Your task to perform on an android device: open chrome and create a bookmark for the current page Image 0: 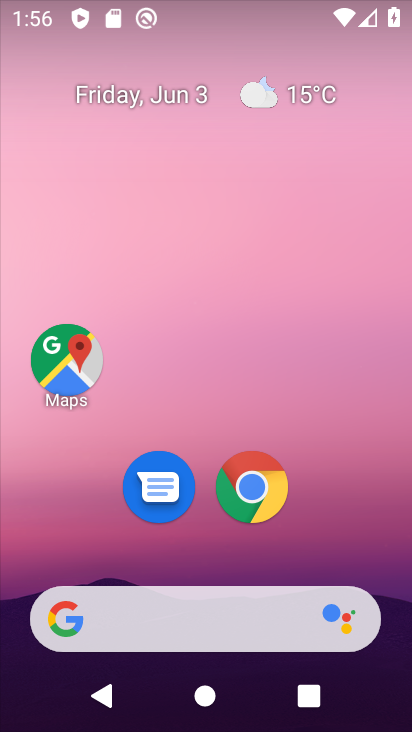
Step 0: click (270, 480)
Your task to perform on an android device: open chrome and create a bookmark for the current page Image 1: 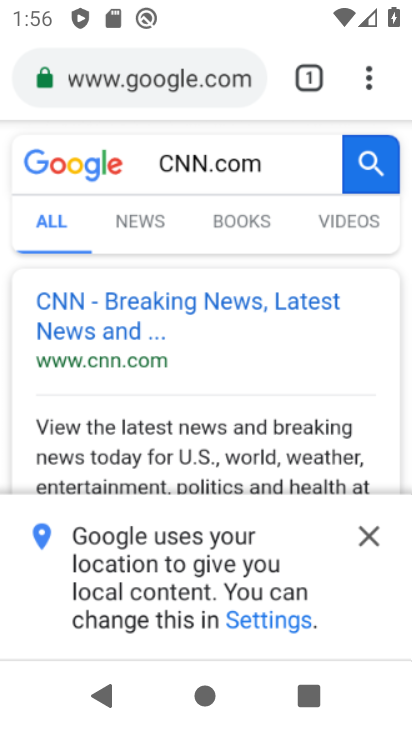
Step 1: click (368, 83)
Your task to perform on an android device: open chrome and create a bookmark for the current page Image 2: 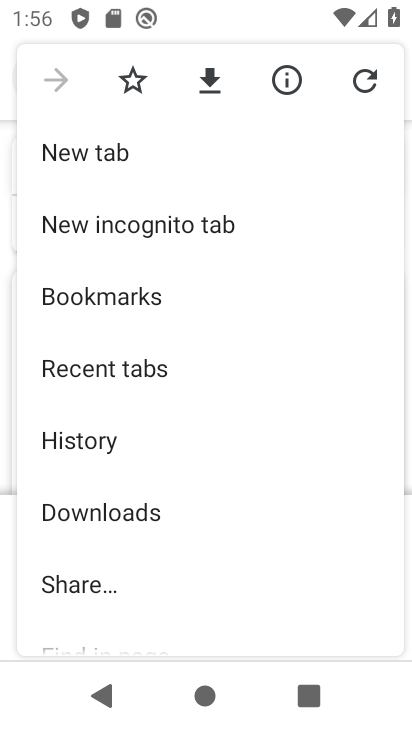
Step 2: click (138, 83)
Your task to perform on an android device: open chrome and create a bookmark for the current page Image 3: 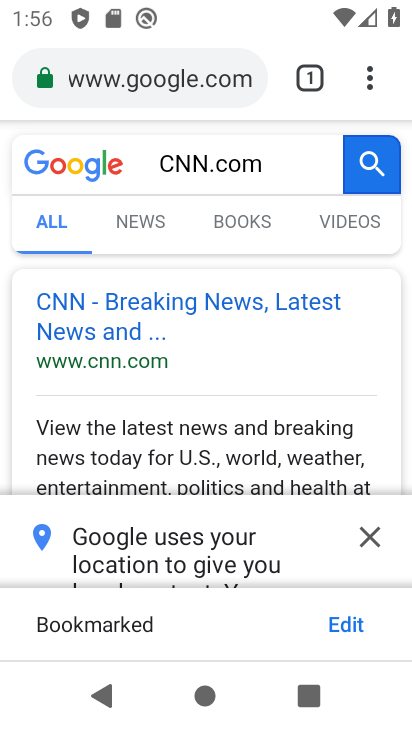
Step 3: task complete